Your task to perform on an android device: Open Reddit.com Image 0: 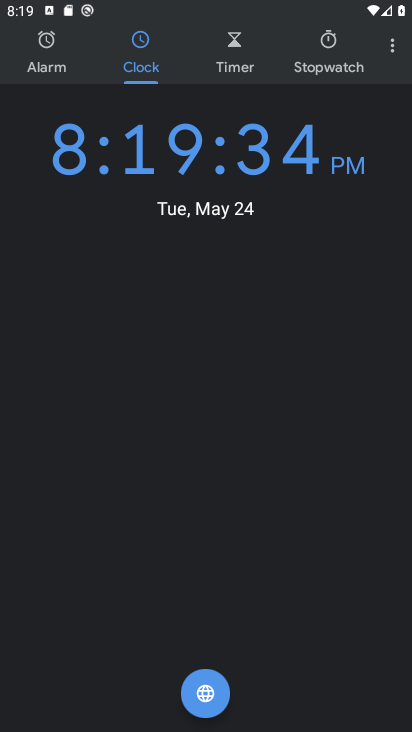
Step 0: press home button
Your task to perform on an android device: Open Reddit.com Image 1: 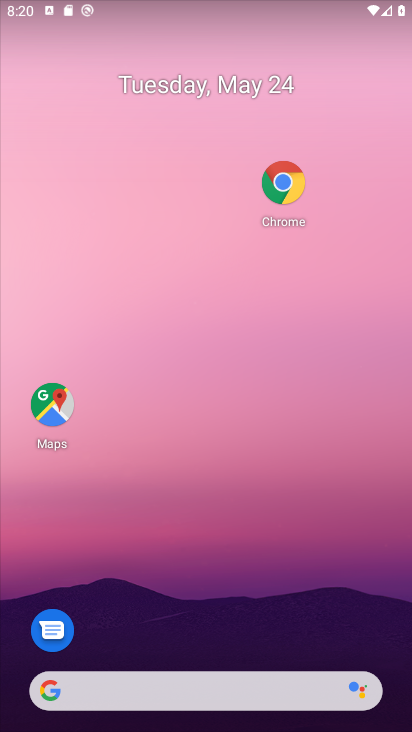
Step 1: drag from (307, 721) to (302, 164)
Your task to perform on an android device: Open Reddit.com Image 2: 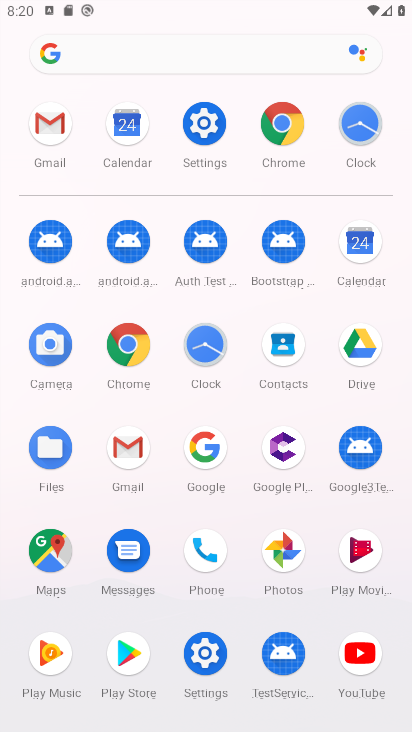
Step 2: click (271, 129)
Your task to perform on an android device: Open Reddit.com Image 3: 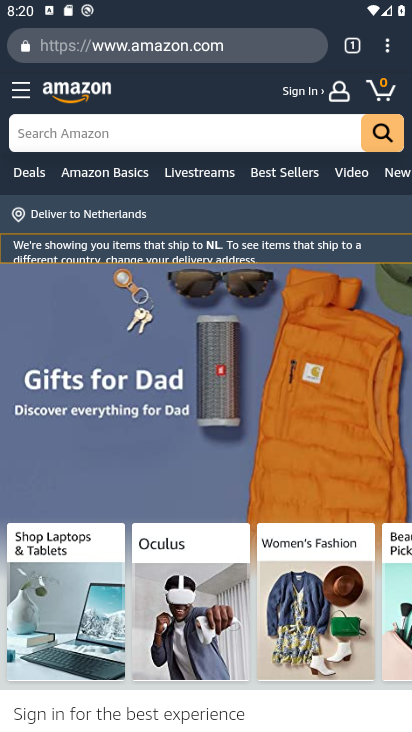
Step 3: click (245, 42)
Your task to perform on an android device: Open Reddit.com Image 4: 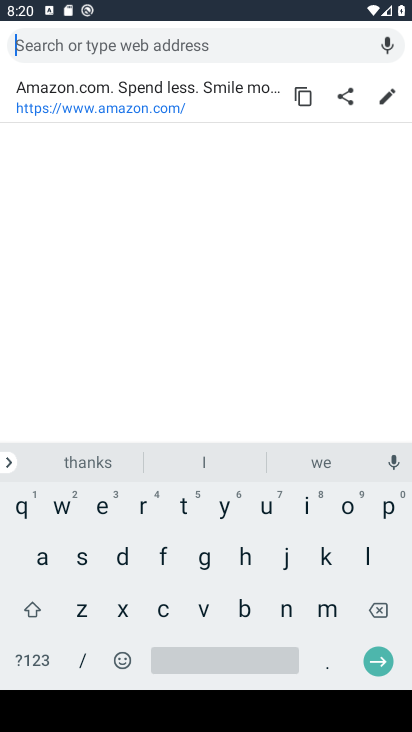
Step 4: click (136, 508)
Your task to perform on an android device: Open Reddit.com Image 5: 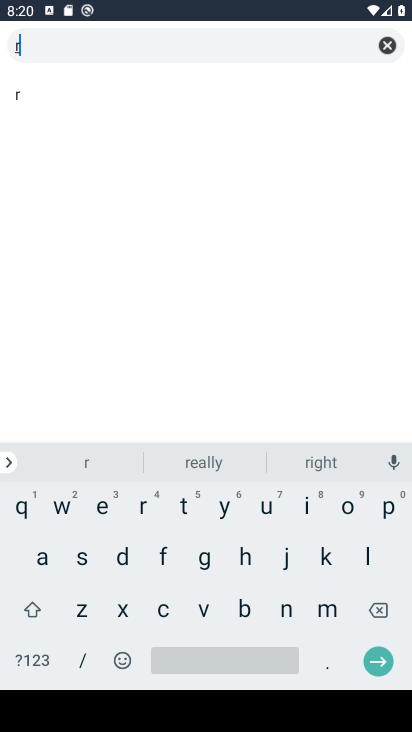
Step 5: click (99, 510)
Your task to perform on an android device: Open Reddit.com Image 6: 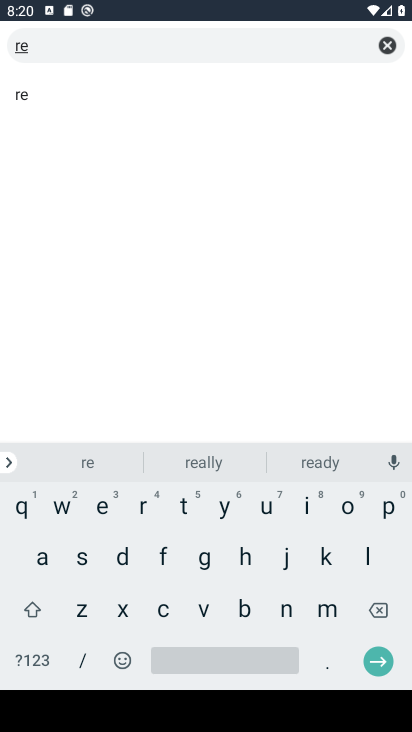
Step 6: click (115, 553)
Your task to perform on an android device: Open Reddit.com Image 7: 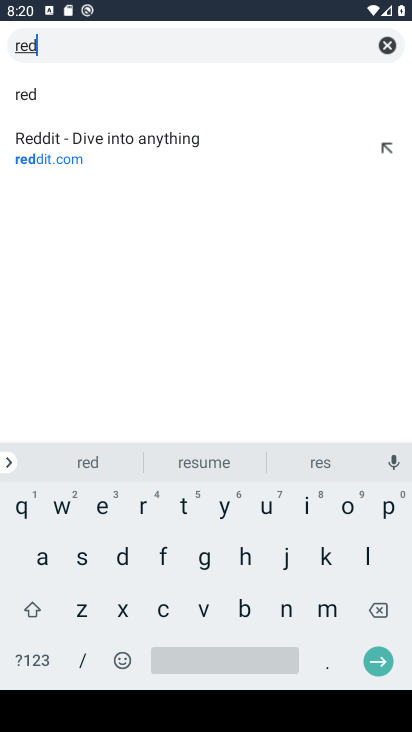
Step 7: click (104, 144)
Your task to perform on an android device: Open Reddit.com Image 8: 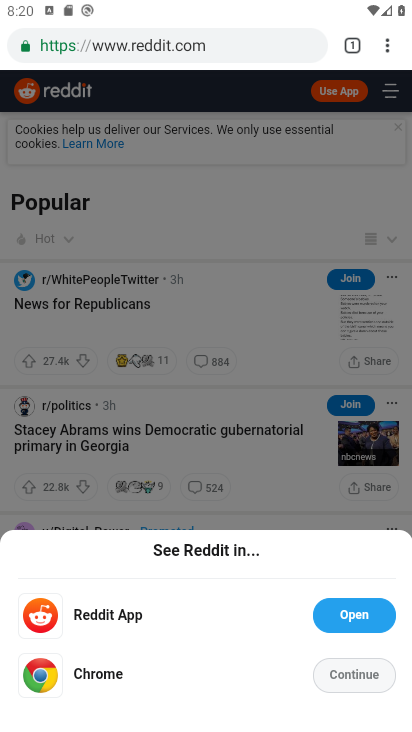
Step 8: click (190, 680)
Your task to perform on an android device: Open Reddit.com Image 9: 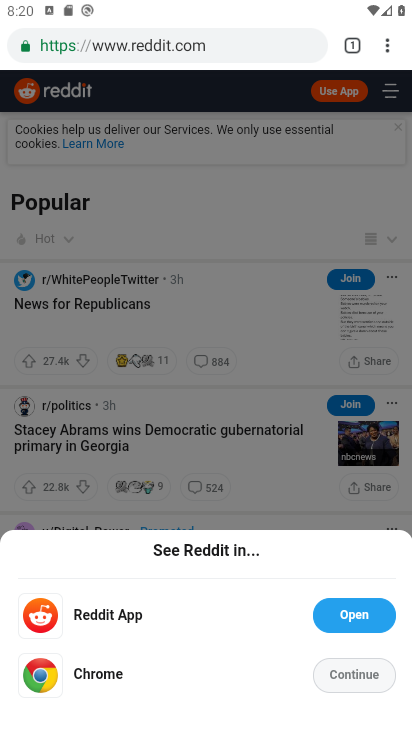
Step 9: click (358, 670)
Your task to perform on an android device: Open Reddit.com Image 10: 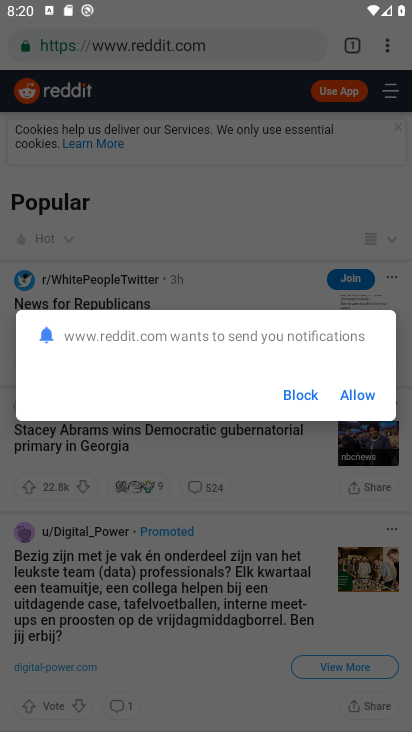
Step 10: click (348, 393)
Your task to perform on an android device: Open Reddit.com Image 11: 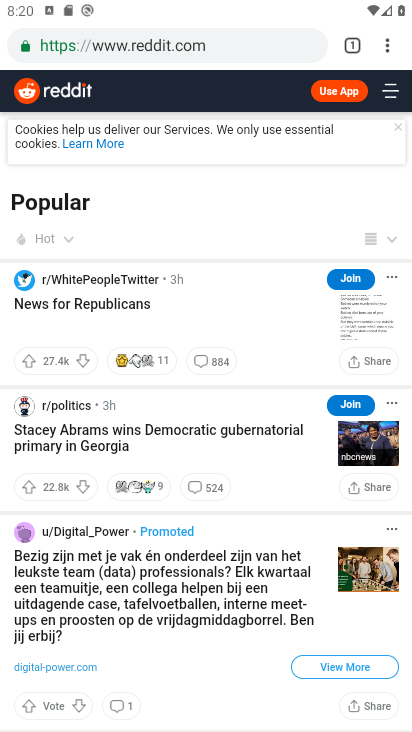
Step 11: task complete